Your task to perform on an android device: turn notification dots off Image 0: 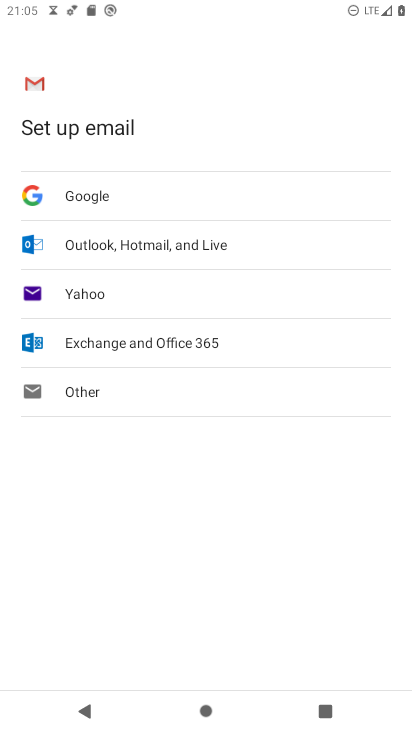
Step 0: press home button
Your task to perform on an android device: turn notification dots off Image 1: 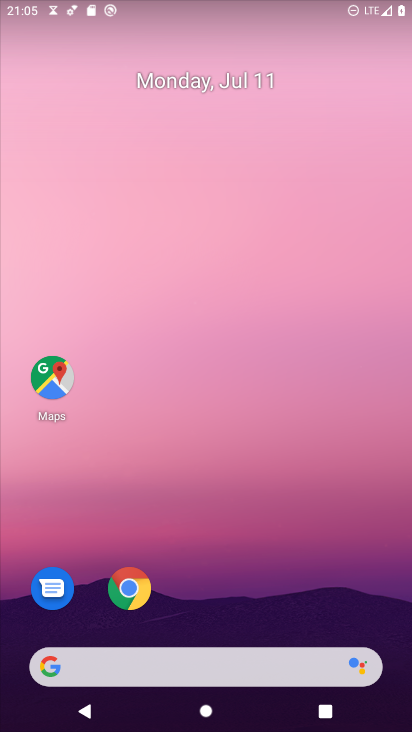
Step 1: drag from (211, 507) to (188, 37)
Your task to perform on an android device: turn notification dots off Image 2: 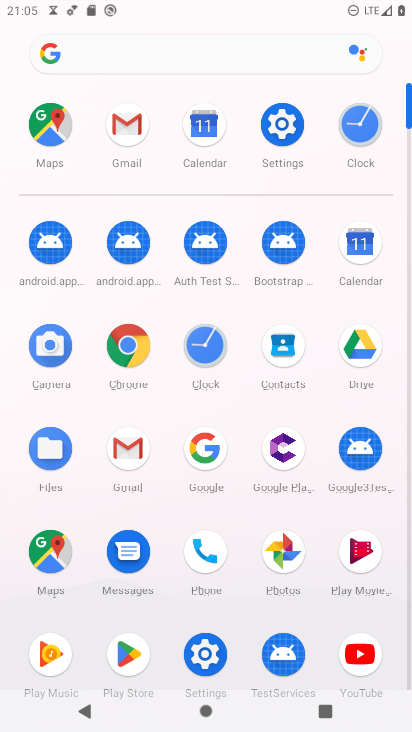
Step 2: click (281, 119)
Your task to perform on an android device: turn notification dots off Image 3: 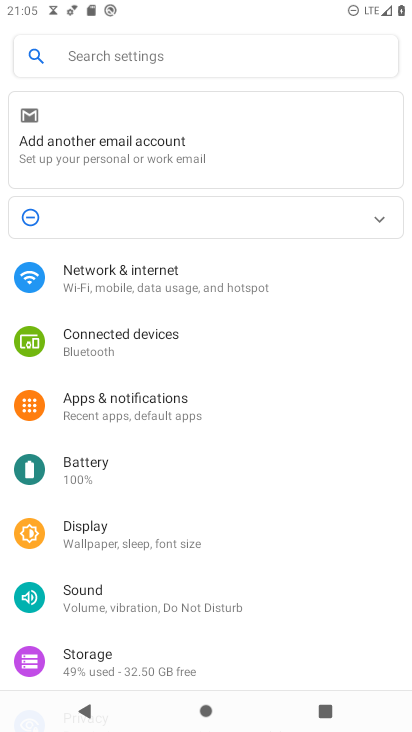
Step 3: click (87, 400)
Your task to perform on an android device: turn notification dots off Image 4: 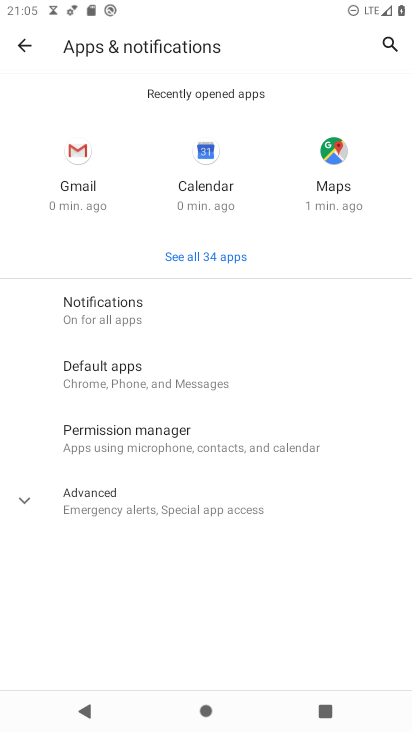
Step 4: click (94, 318)
Your task to perform on an android device: turn notification dots off Image 5: 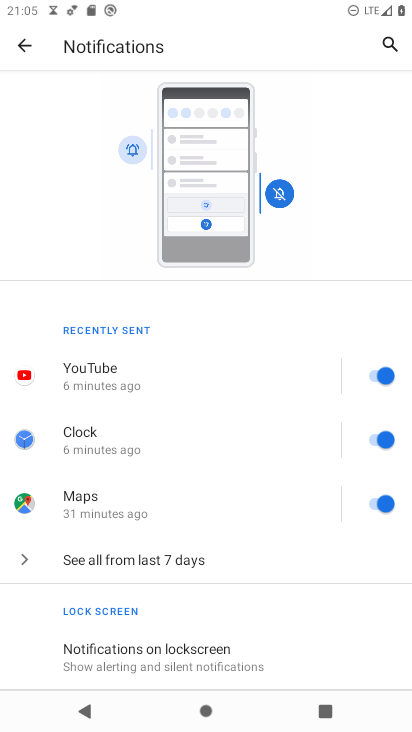
Step 5: drag from (190, 618) to (186, 322)
Your task to perform on an android device: turn notification dots off Image 6: 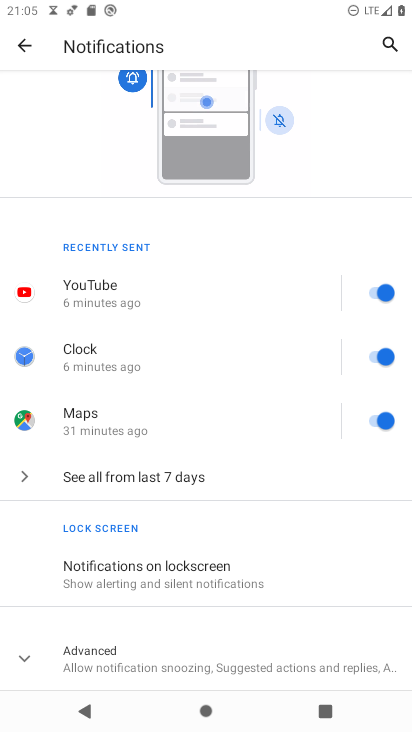
Step 6: click (103, 659)
Your task to perform on an android device: turn notification dots off Image 7: 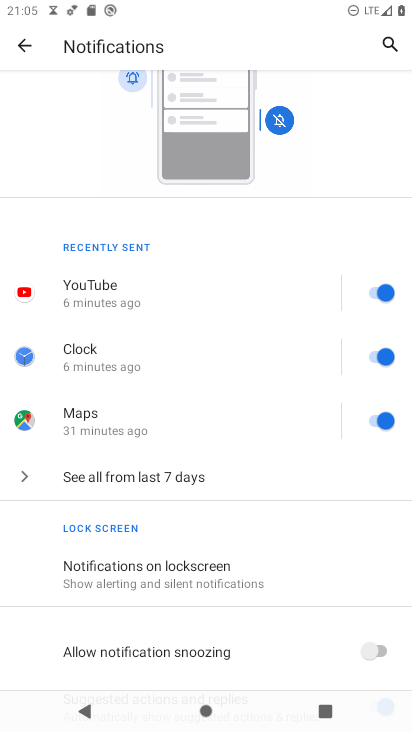
Step 7: task complete